Your task to perform on an android device: toggle airplane mode Image 0: 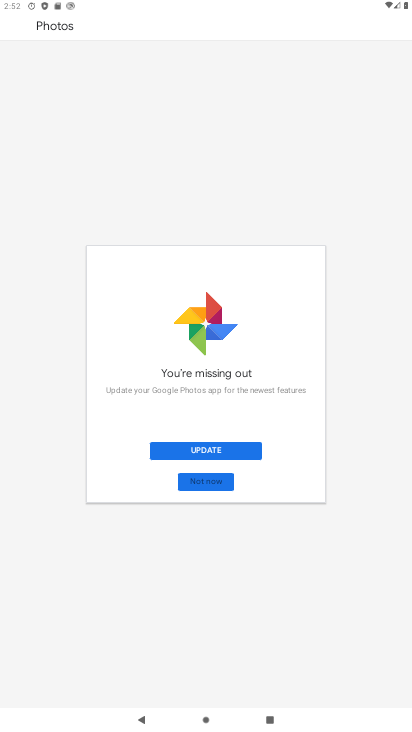
Step 0: press home button
Your task to perform on an android device: toggle airplane mode Image 1: 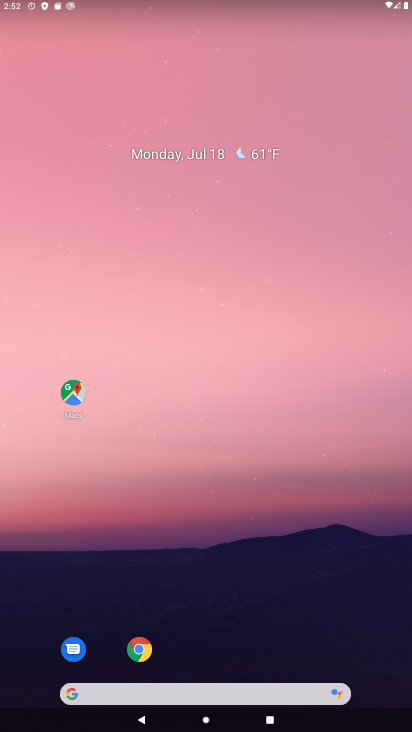
Step 1: drag from (28, 703) to (131, 183)
Your task to perform on an android device: toggle airplane mode Image 2: 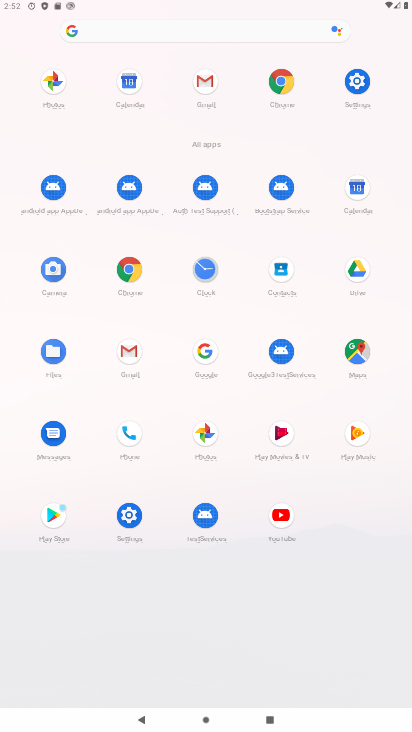
Step 2: click (136, 527)
Your task to perform on an android device: toggle airplane mode Image 3: 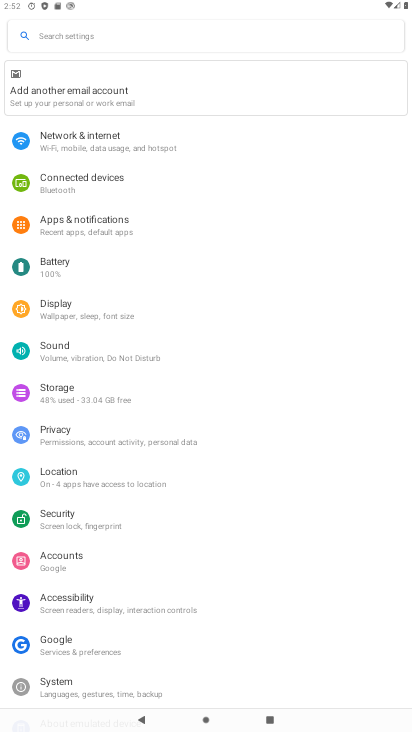
Step 3: click (108, 145)
Your task to perform on an android device: toggle airplane mode Image 4: 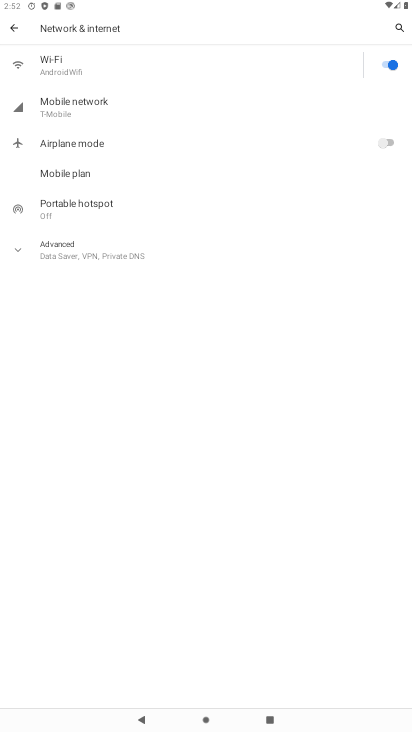
Step 4: click (382, 144)
Your task to perform on an android device: toggle airplane mode Image 5: 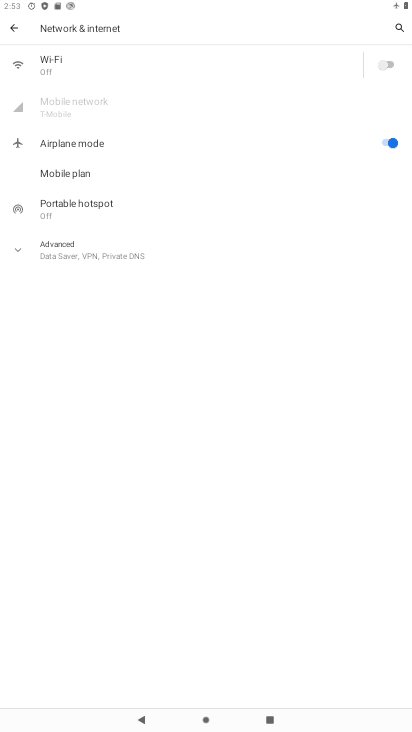
Step 5: task complete